Your task to perform on an android device: open app "Life360: Find Family & Friends" Image 0: 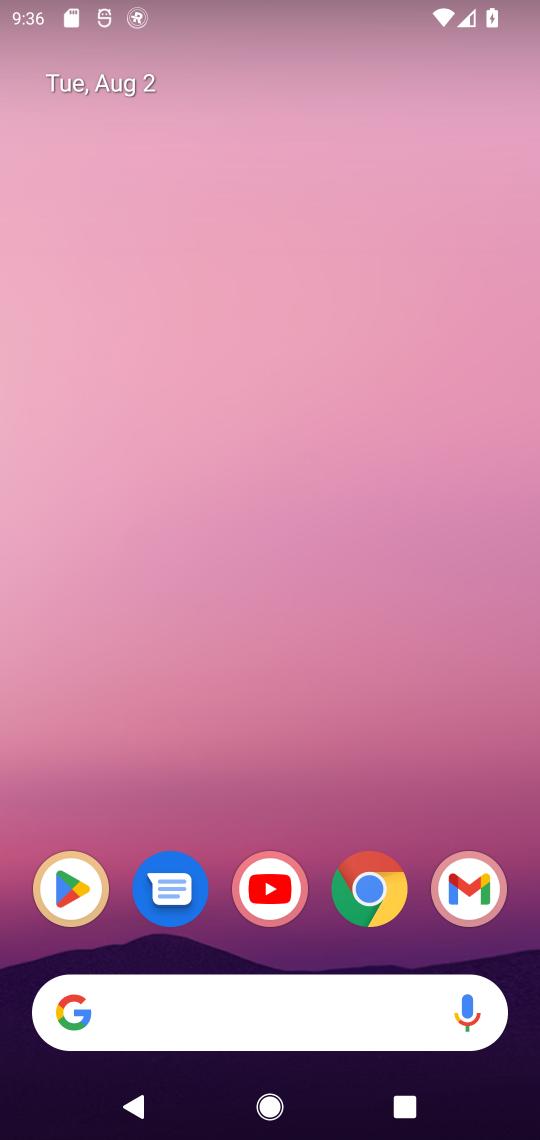
Step 0: click (65, 892)
Your task to perform on an android device: open app "Life360: Find Family & Friends" Image 1: 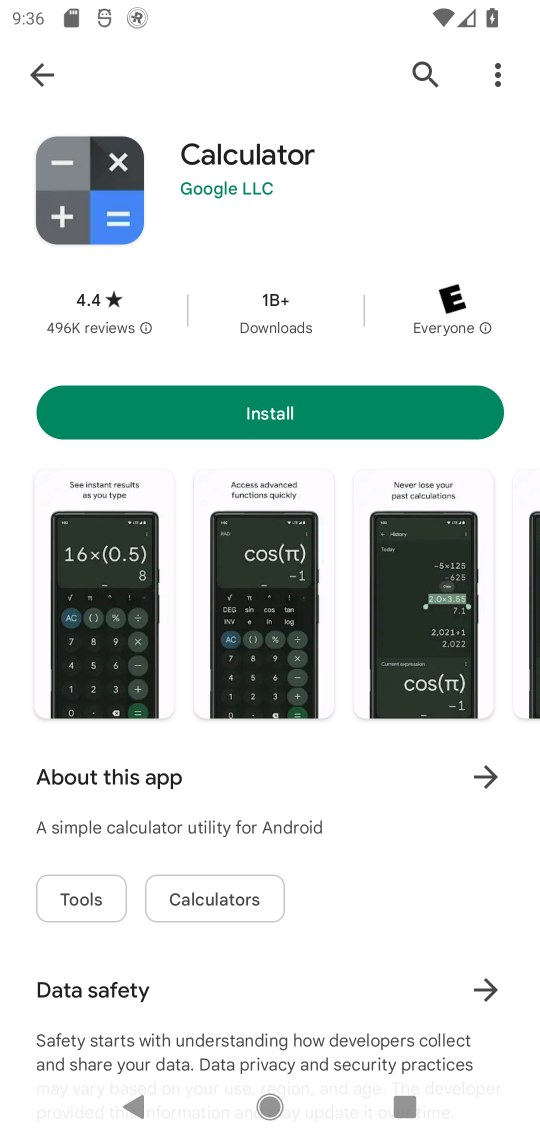
Step 1: click (422, 64)
Your task to perform on an android device: open app "Life360: Find Family & Friends" Image 2: 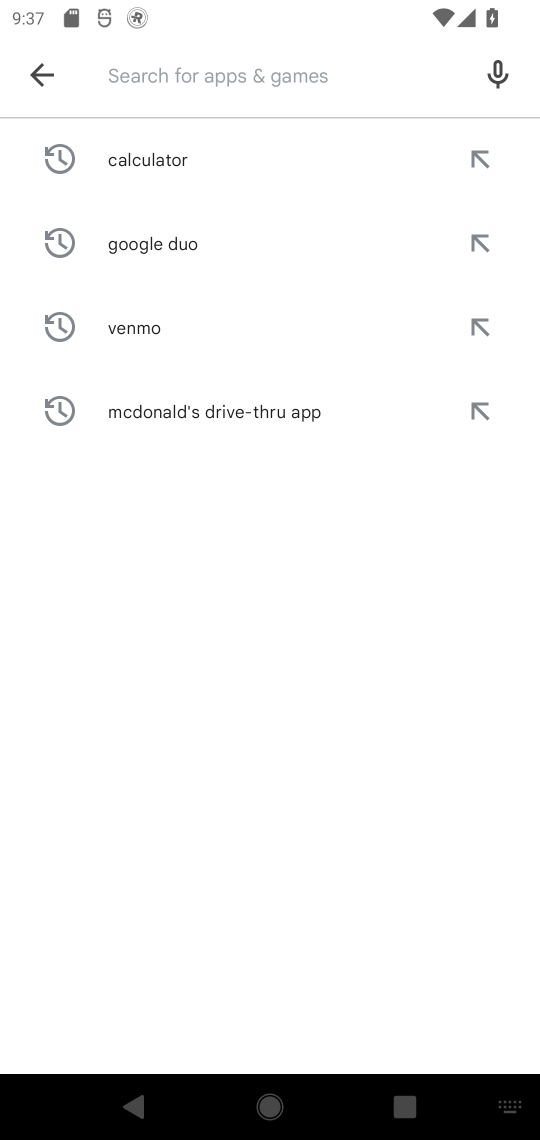
Step 2: type "Life360: Find Family & Friends"
Your task to perform on an android device: open app "Life360: Find Family & Friends" Image 3: 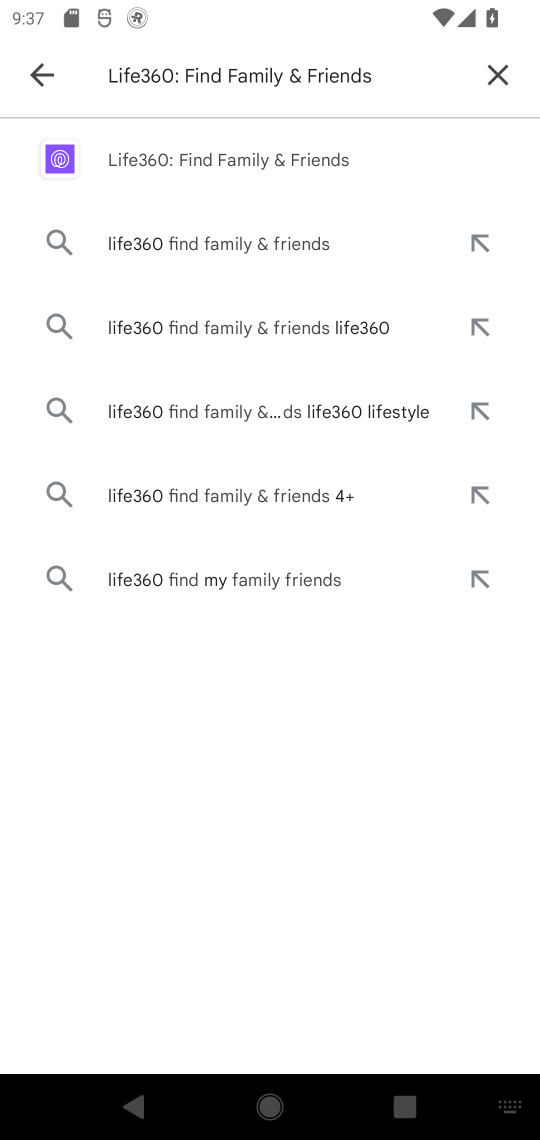
Step 3: click (214, 168)
Your task to perform on an android device: open app "Life360: Find Family & Friends" Image 4: 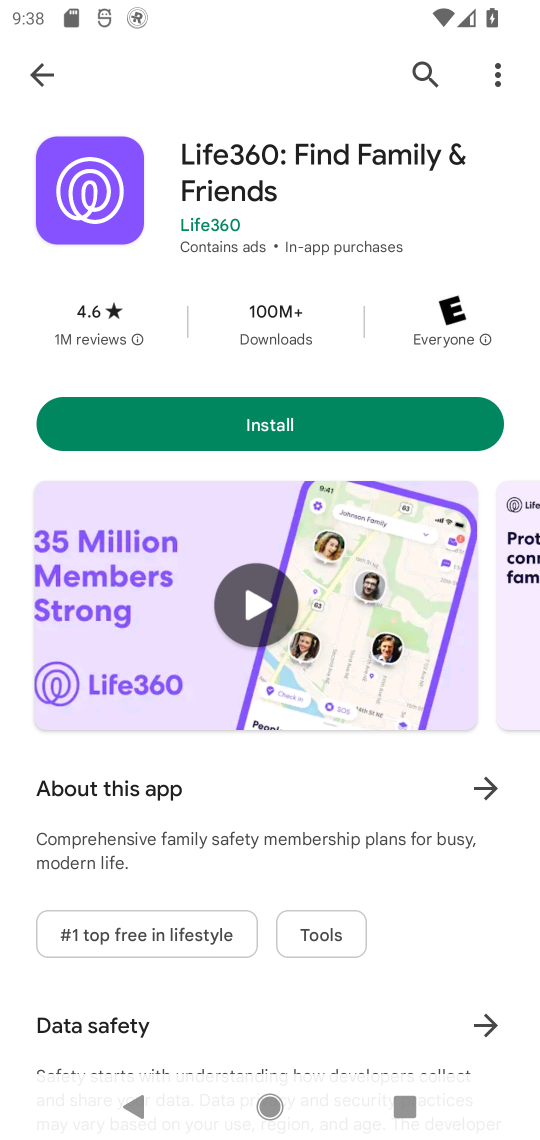
Step 4: task complete